Your task to perform on an android device: Open calendar and show me the third week of next month Image 0: 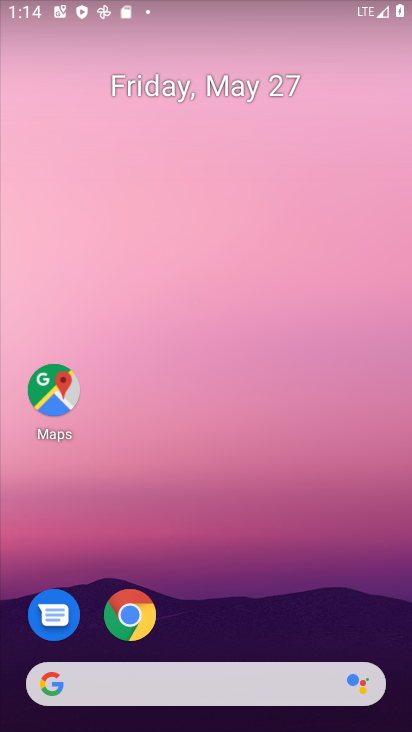
Step 0: drag from (198, 687) to (228, 116)
Your task to perform on an android device: Open calendar and show me the third week of next month Image 1: 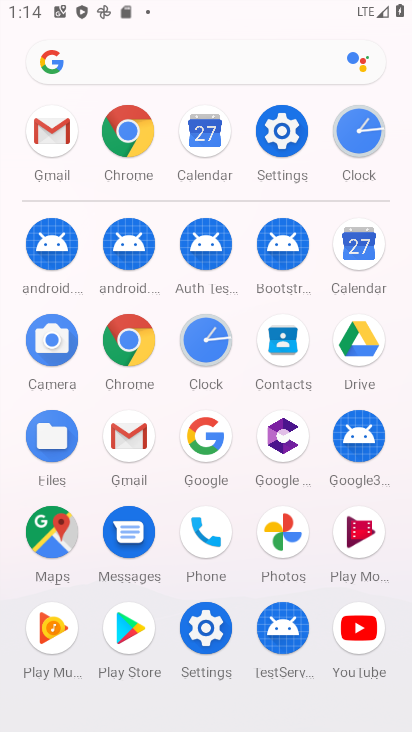
Step 1: click (344, 265)
Your task to perform on an android device: Open calendar and show me the third week of next month Image 2: 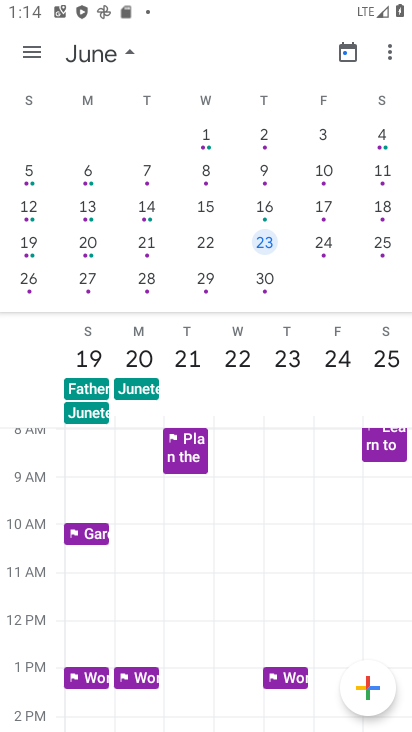
Step 2: click (200, 203)
Your task to perform on an android device: Open calendar and show me the third week of next month Image 3: 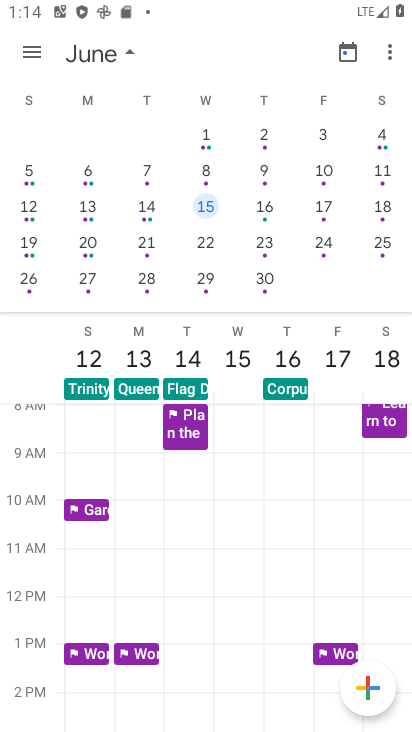
Step 3: task complete